Your task to perform on an android device: Open Google Maps and go to "Timeline" Image 0: 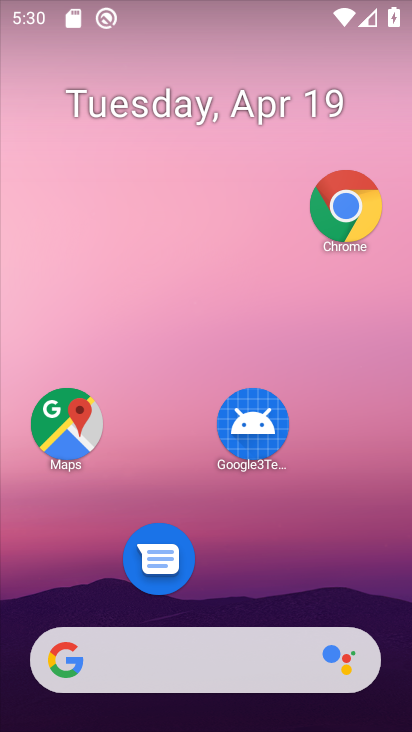
Step 0: drag from (215, 668) to (306, 362)
Your task to perform on an android device: Open Google Maps and go to "Timeline" Image 1: 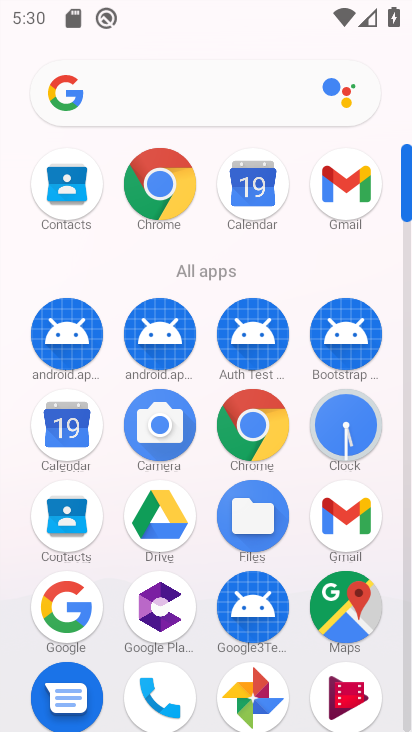
Step 1: drag from (241, 625) to (276, 363)
Your task to perform on an android device: Open Google Maps and go to "Timeline" Image 2: 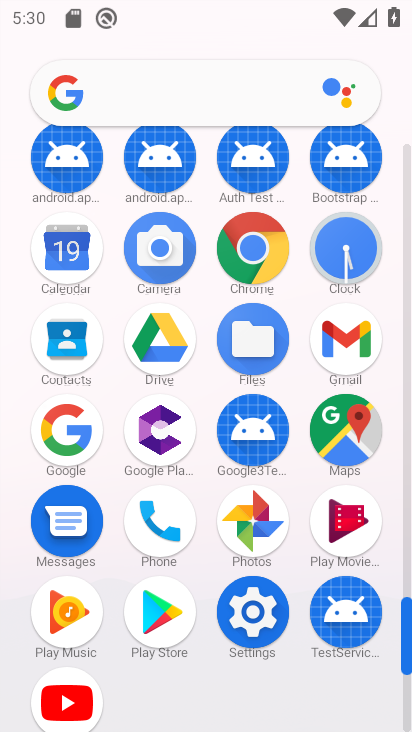
Step 2: click (353, 435)
Your task to perform on an android device: Open Google Maps and go to "Timeline" Image 3: 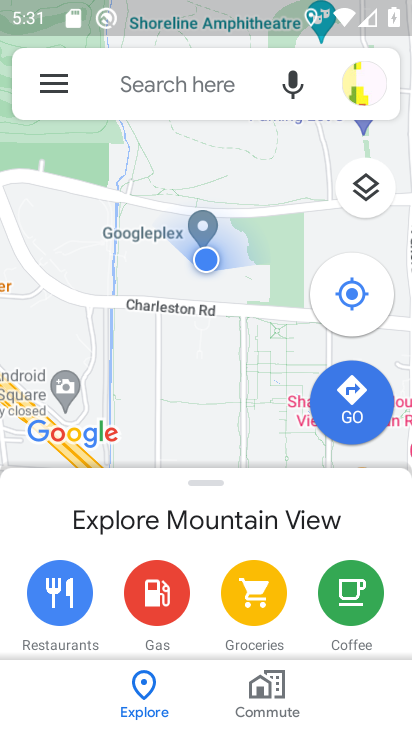
Step 3: drag from (216, 467) to (228, 202)
Your task to perform on an android device: Open Google Maps and go to "Timeline" Image 4: 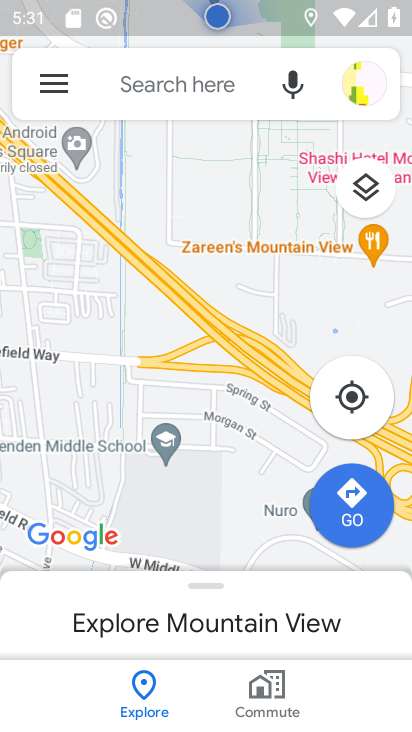
Step 4: click (49, 90)
Your task to perform on an android device: Open Google Maps and go to "Timeline" Image 5: 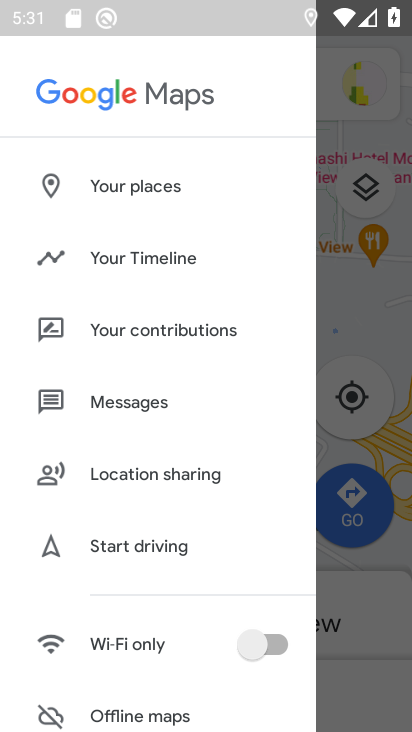
Step 5: click (125, 259)
Your task to perform on an android device: Open Google Maps and go to "Timeline" Image 6: 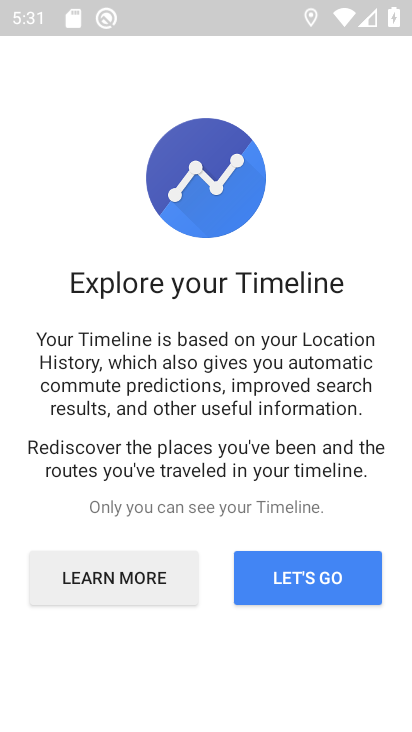
Step 6: click (319, 577)
Your task to perform on an android device: Open Google Maps and go to "Timeline" Image 7: 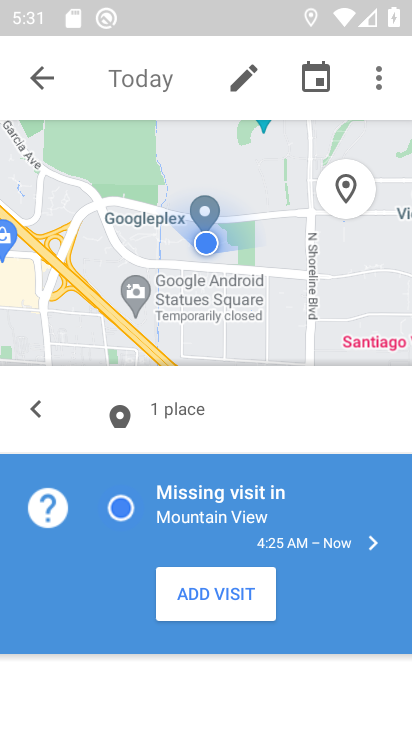
Step 7: task complete